Your task to perform on an android device: open app "Pluto TV - Live TV and Movies" (install if not already installed) Image 0: 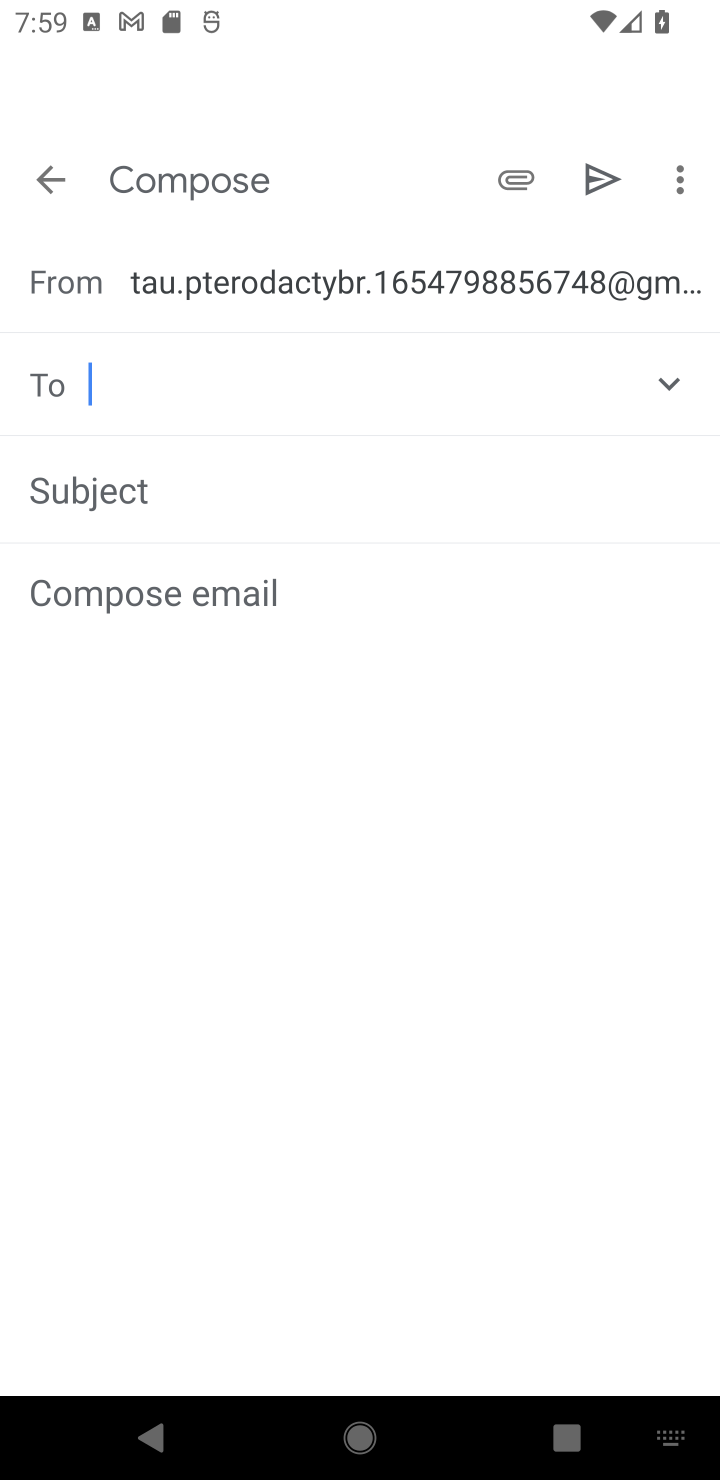
Step 0: press home button
Your task to perform on an android device: open app "Pluto TV - Live TV and Movies" (install if not already installed) Image 1: 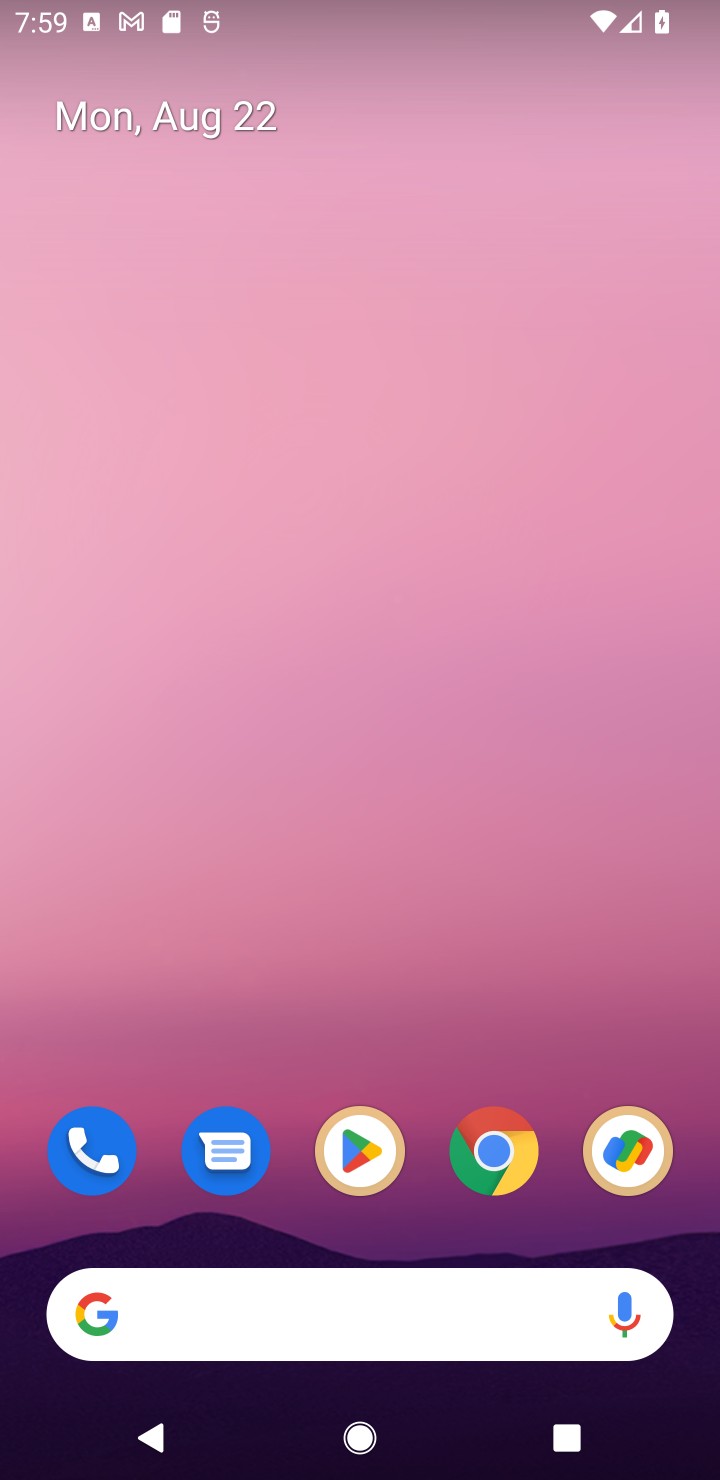
Step 1: click (343, 1142)
Your task to perform on an android device: open app "Pluto TV - Live TV and Movies" (install if not already installed) Image 2: 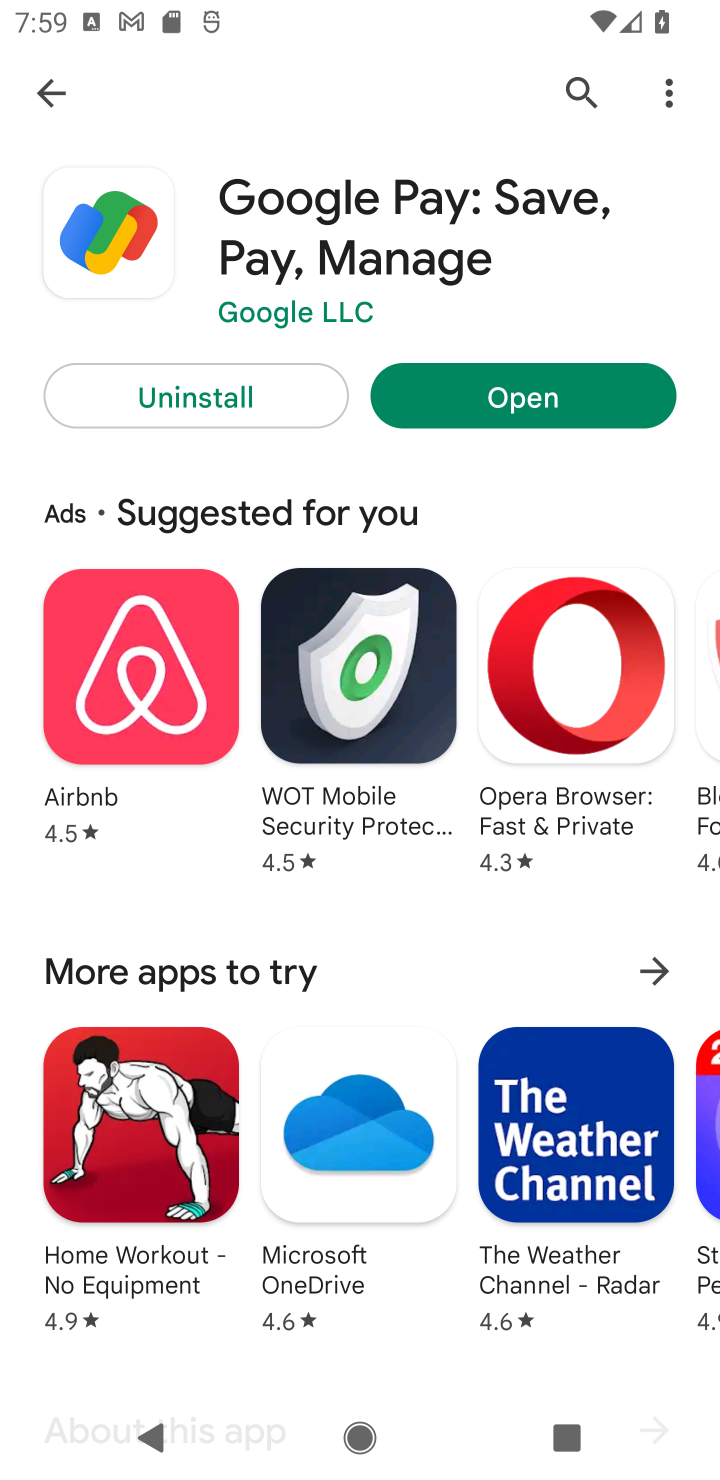
Step 2: click (576, 90)
Your task to perform on an android device: open app "Pluto TV - Live TV and Movies" (install if not already installed) Image 3: 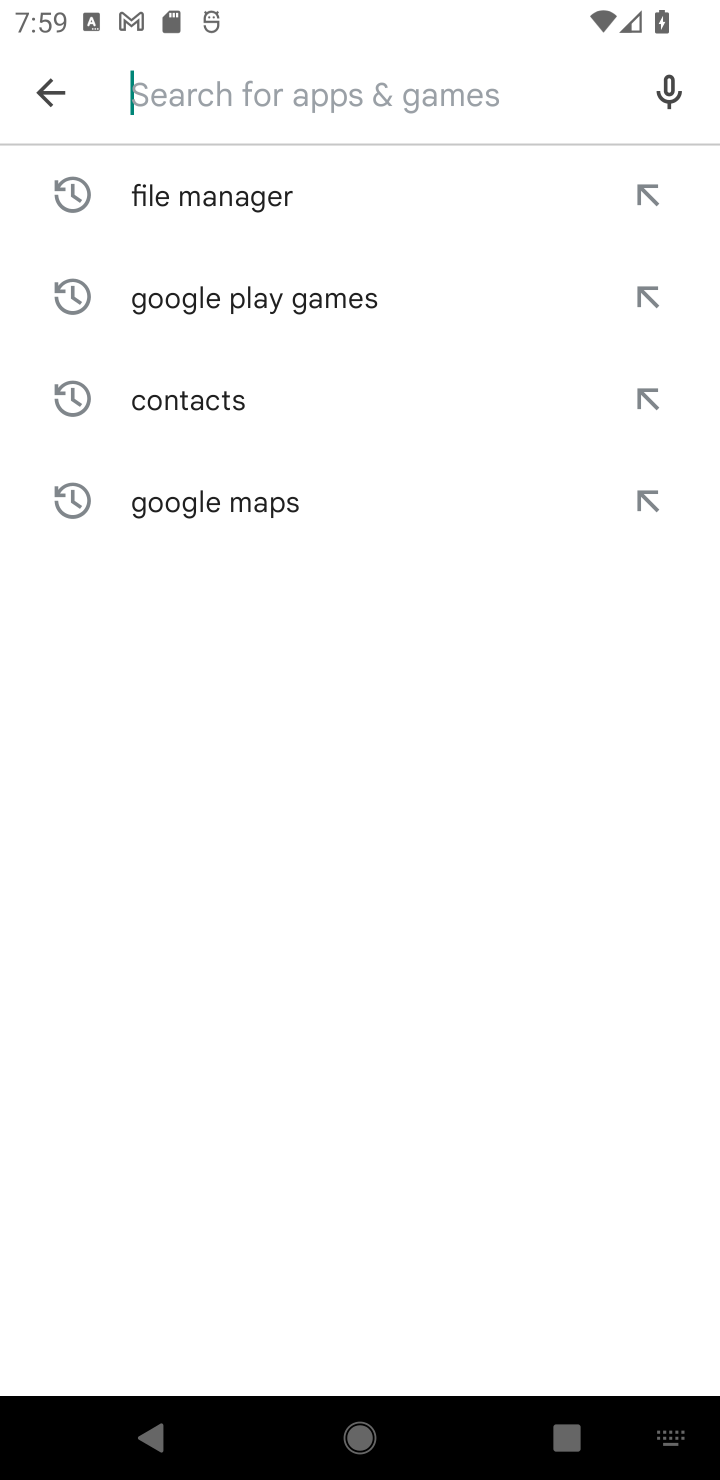
Step 3: type "Pluto TV - Live TV and Movies"
Your task to perform on an android device: open app "Pluto TV - Live TV and Movies" (install if not already installed) Image 4: 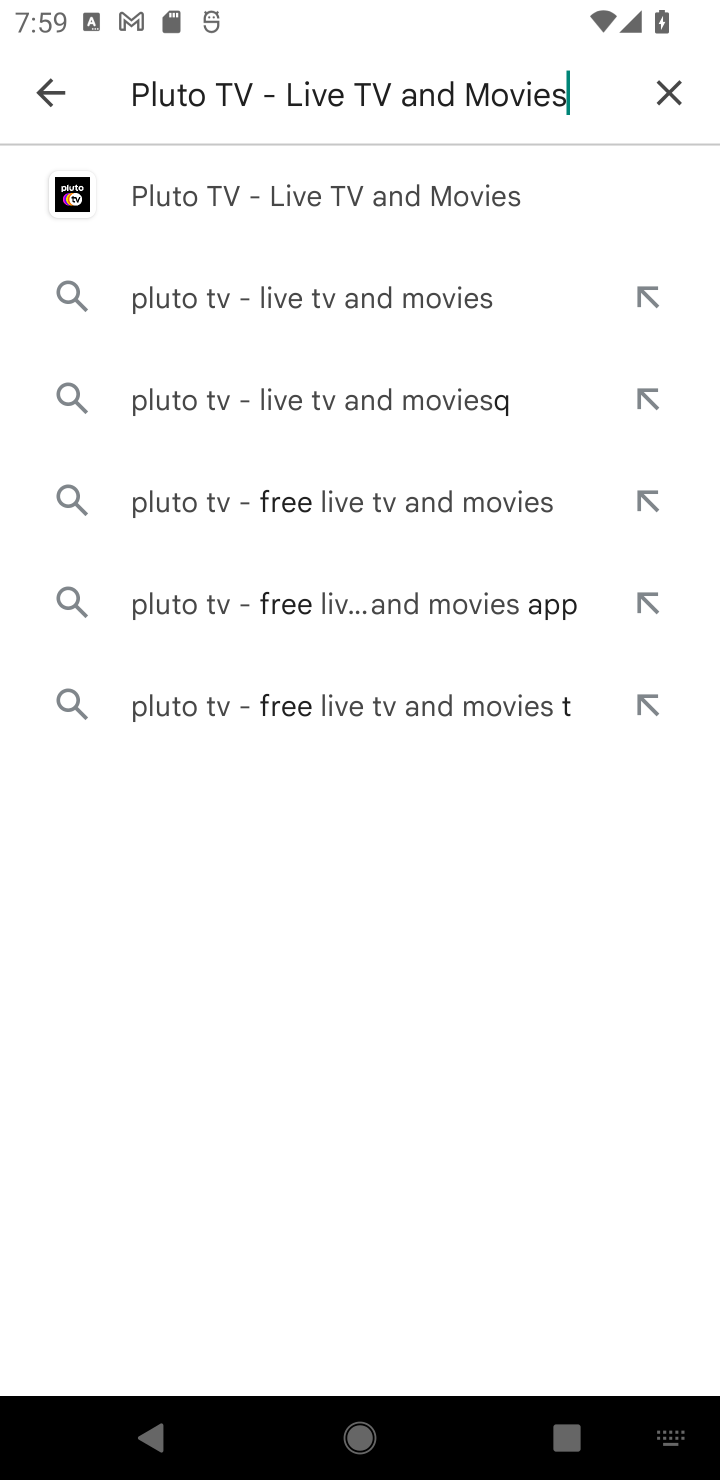
Step 4: click (375, 174)
Your task to perform on an android device: open app "Pluto TV - Live TV and Movies" (install if not already installed) Image 5: 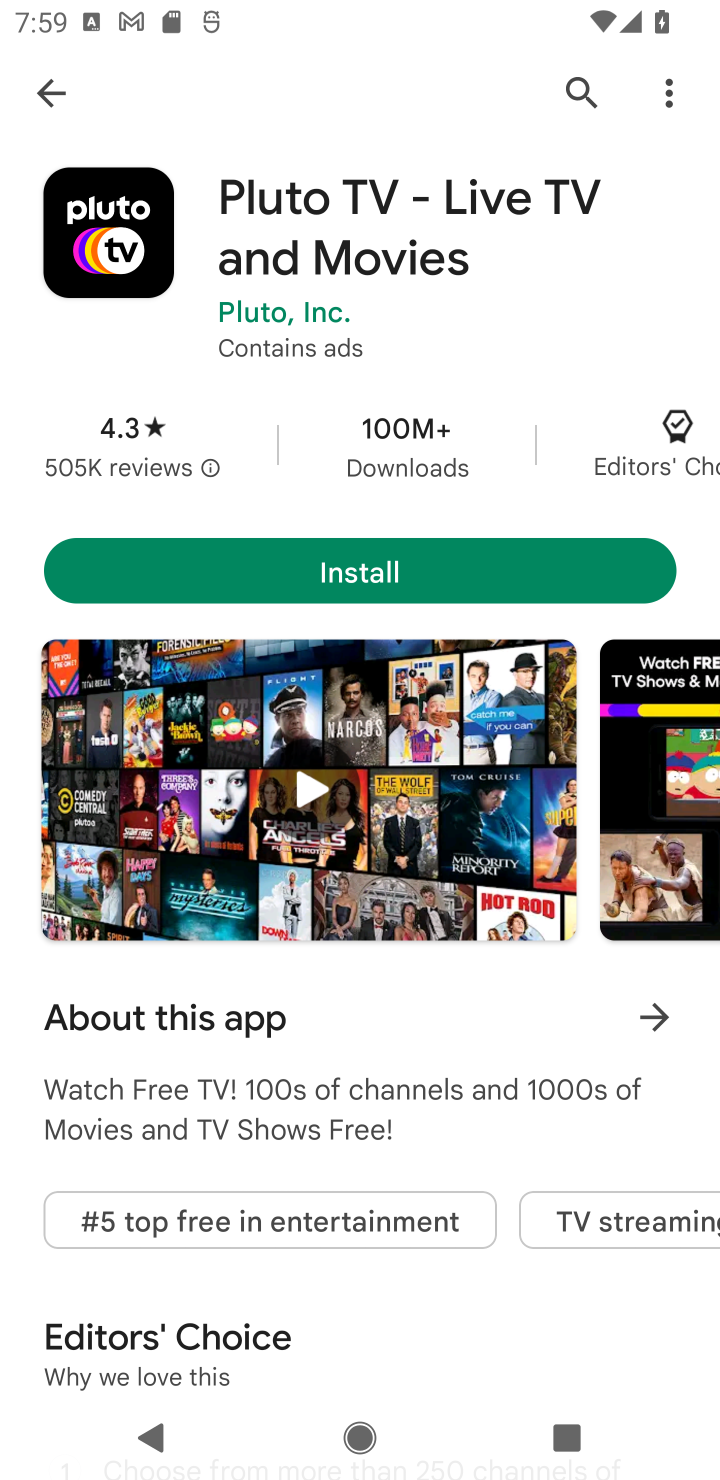
Step 5: click (381, 572)
Your task to perform on an android device: open app "Pluto TV - Live TV and Movies" (install if not already installed) Image 6: 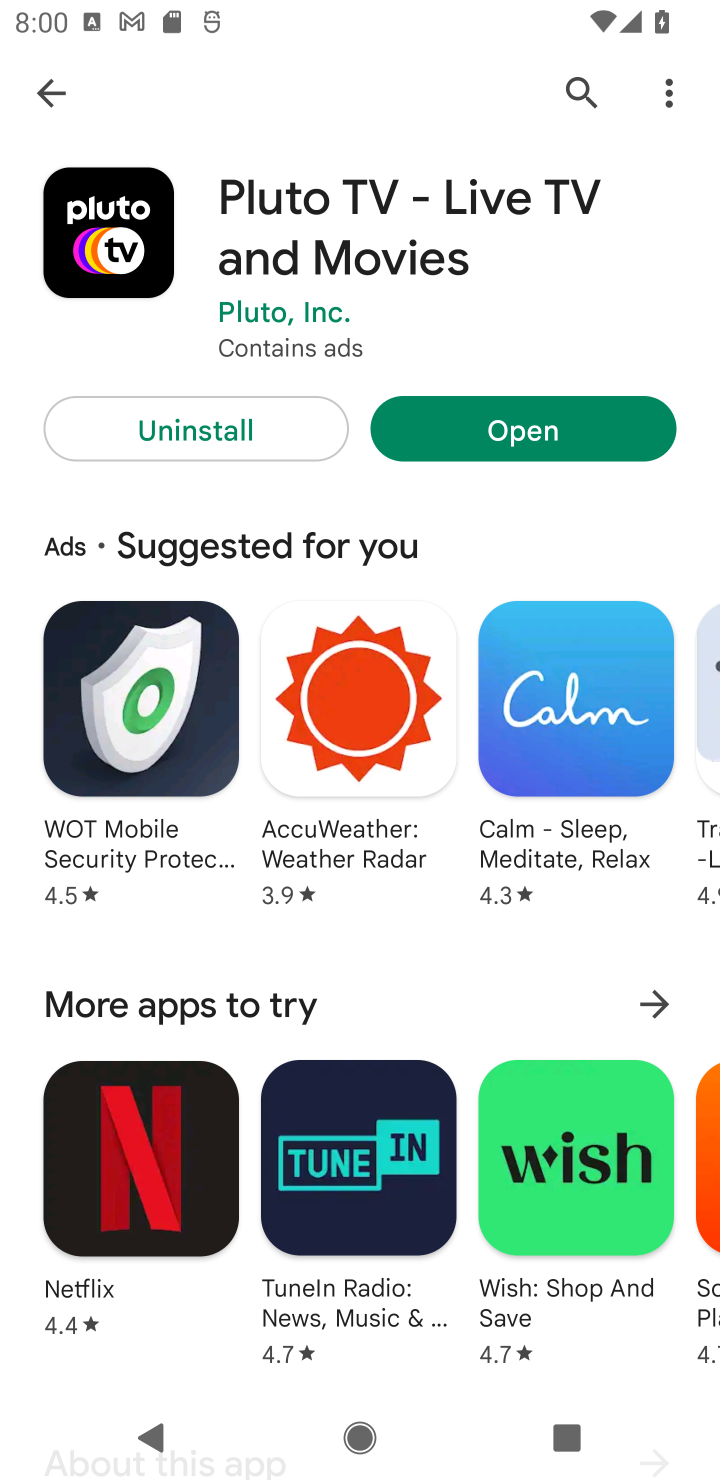
Step 6: click (586, 436)
Your task to perform on an android device: open app "Pluto TV - Live TV and Movies" (install if not already installed) Image 7: 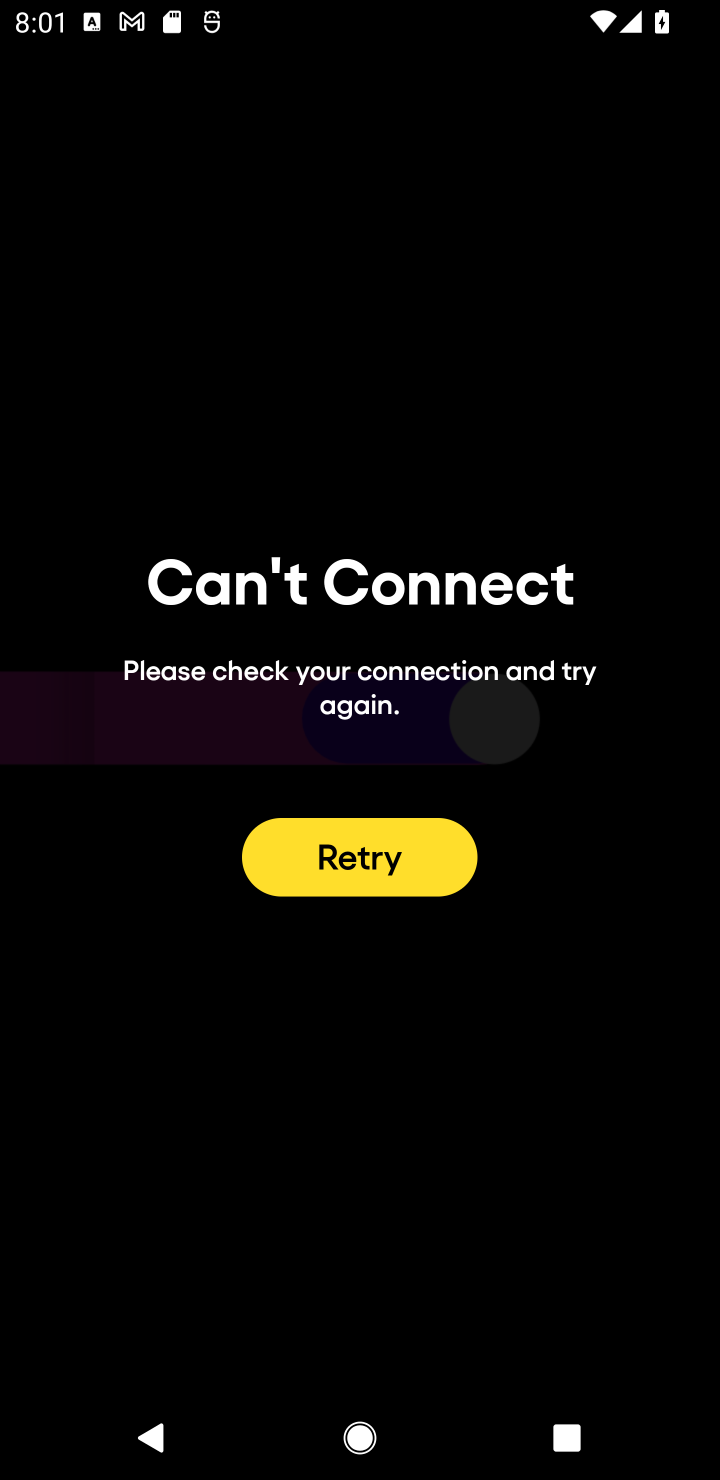
Step 7: task complete